Your task to perform on an android device: turn pop-ups off in chrome Image 0: 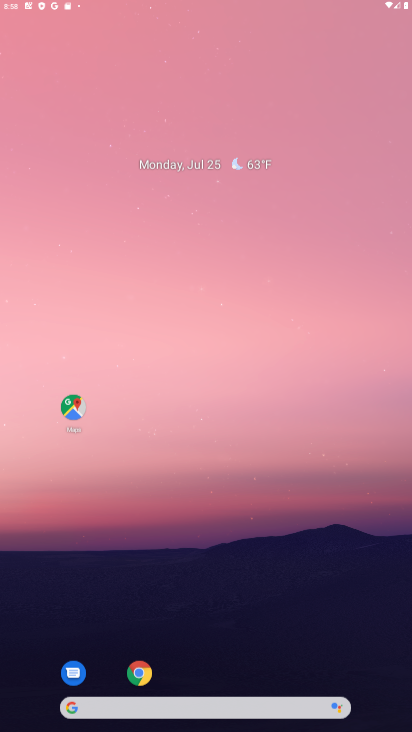
Step 0: drag from (202, 309) to (222, 9)
Your task to perform on an android device: turn pop-ups off in chrome Image 1: 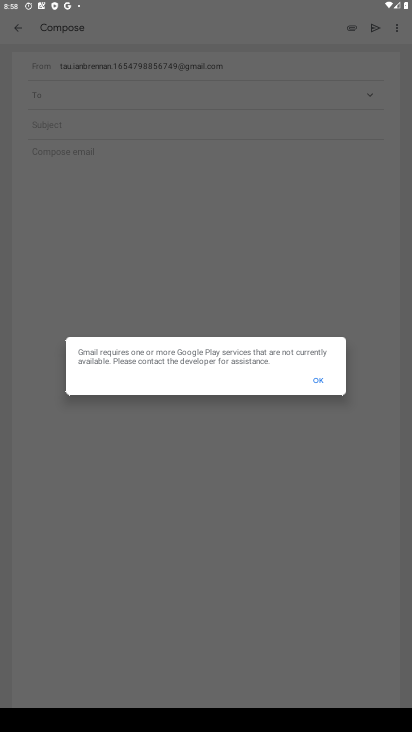
Step 1: press home button
Your task to perform on an android device: turn pop-ups off in chrome Image 2: 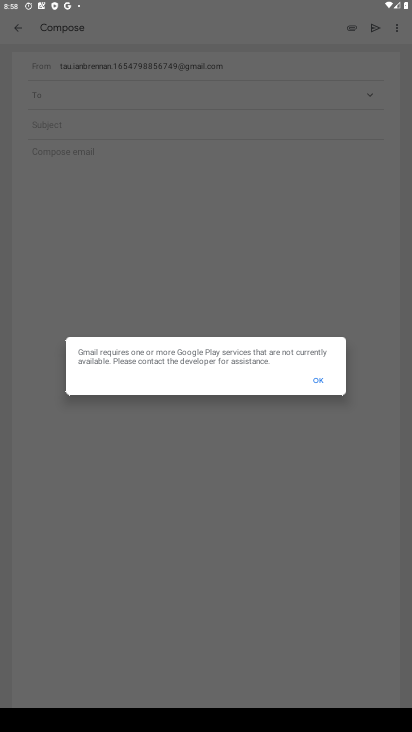
Step 2: press home button
Your task to perform on an android device: turn pop-ups off in chrome Image 3: 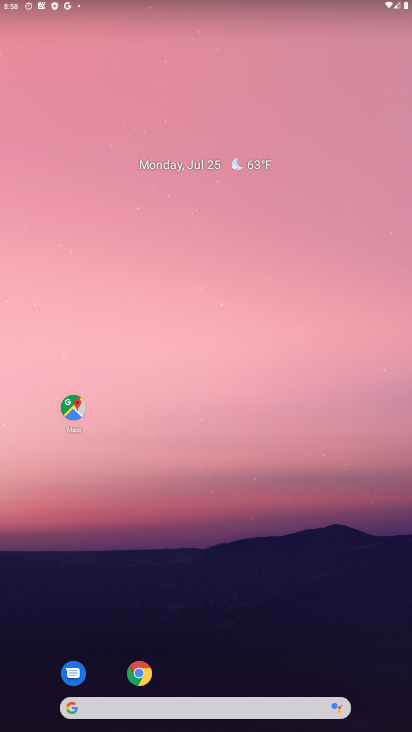
Step 3: drag from (221, 596) to (273, 146)
Your task to perform on an android device: turn pop-ups off in chrome Image 4: 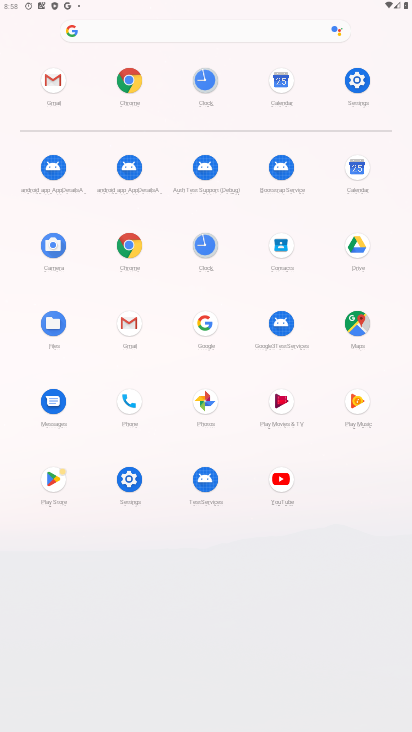
Step 4: drag from (162, 603) to (212, 316)
Your task to perform on an android device: turn pop-ups off in chrome Image 5: 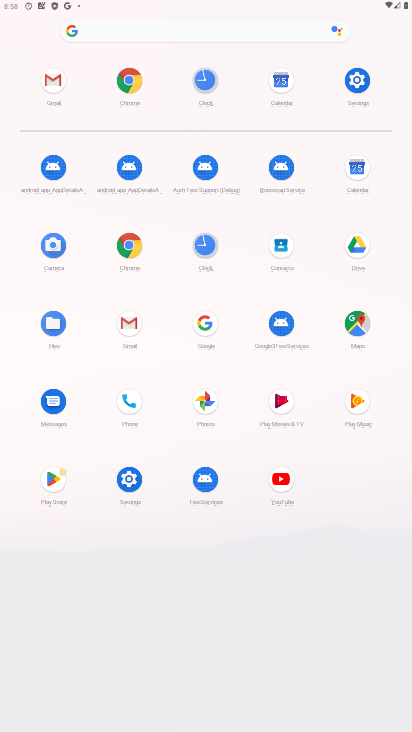
Step 5: click (124, 248)
Your task to perform on an android device: turn pop-ups off in chrome Image 6: 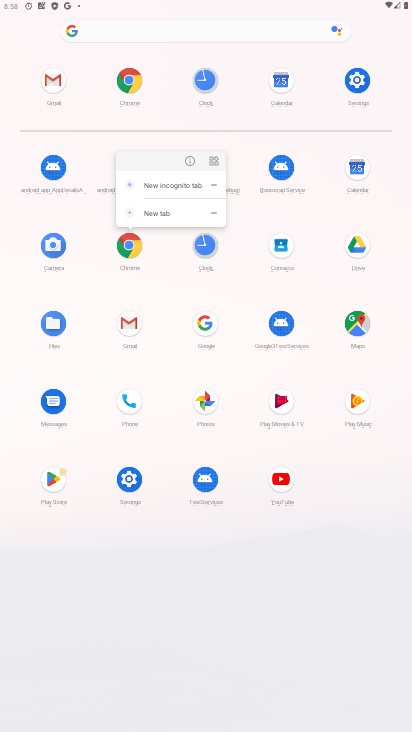
Step 6: click (184, 160)
Your task to perform on an android device: turn pop-ups off in chrome Image 7: 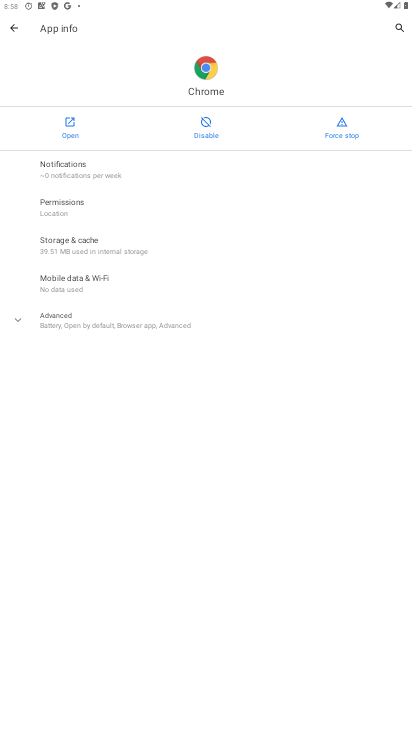
Step 7: drag from (185, 548) to (225, 184)
Your task to perform on an android device: turn pop-ups off in chrome Image 8: 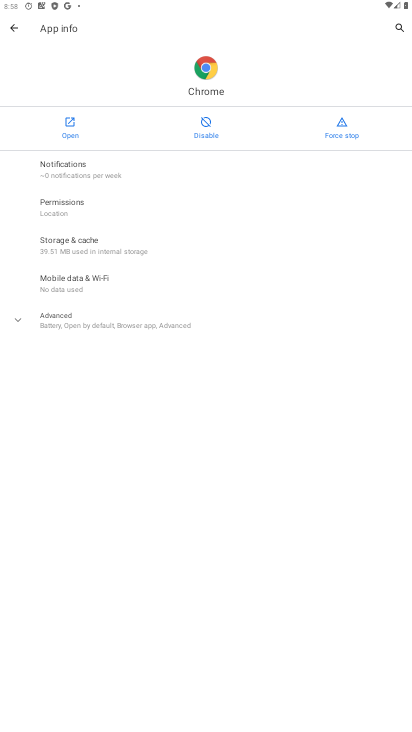
Step 8: click (69, 129)
Your task to perform on an android device: turn pop-ups off in chrome Image 9: 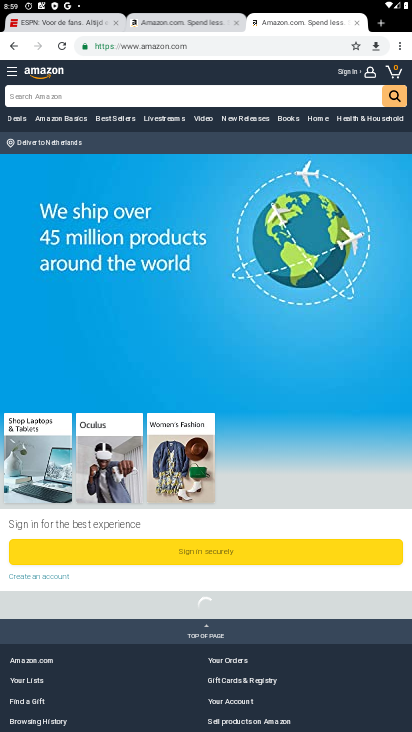
Step 9: drag from (145, 640) to (164, 320)
Your task to perform on an android device: turn pop-ups off in chrome Image 10: 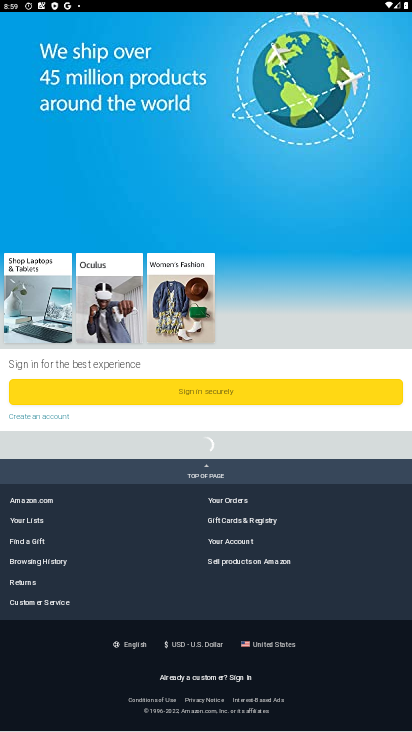
Step 10: drag from (294, 123) to (363, 712)
Your task to perform on an android device: turn pop-ups off in chrome Image 11: 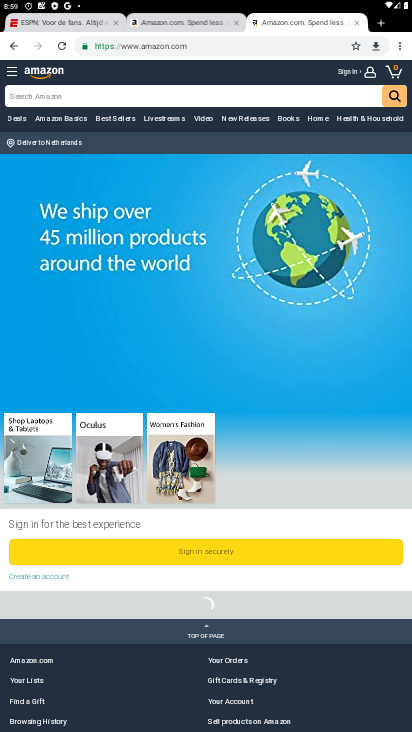
Step 11: drag from (397, 42) to (322, 301)
Your task to perform on an android device: turn pop-ups off in chrome Image 12: 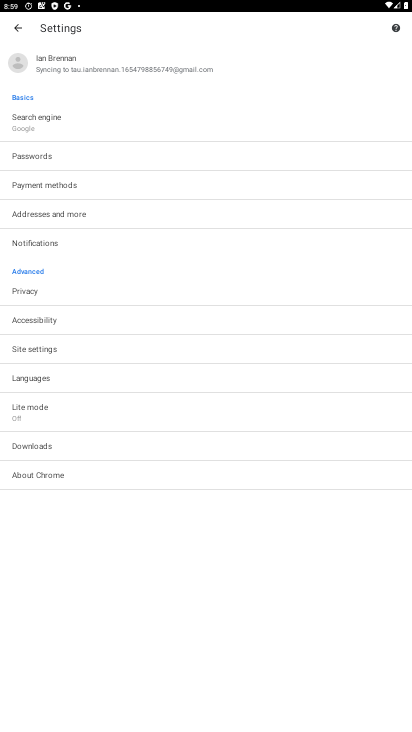
Step 12: click (60, 398)
Your task to perform on an android device: turn pop-ups off in chrome Image 13: 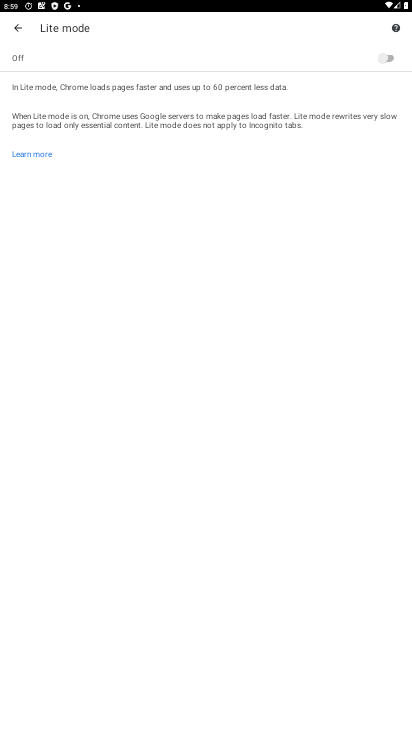
Step 13: task complete